Your task to perform on an android device: check out phone information Image 0: 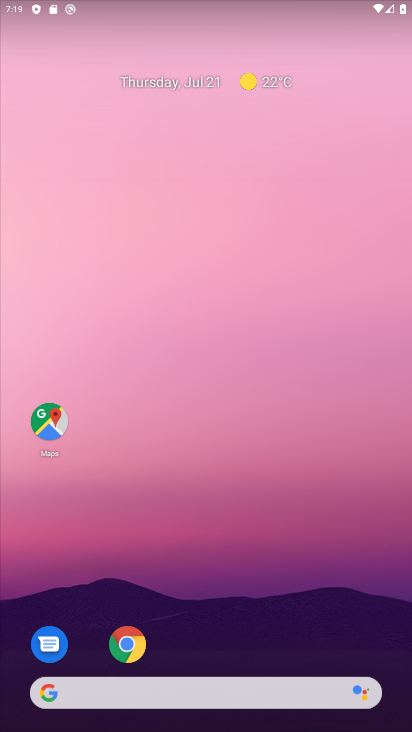
Step 0: drag from (365, 600) to (407, 122)
Your task to perform on an android device: check out phone information Image 1: 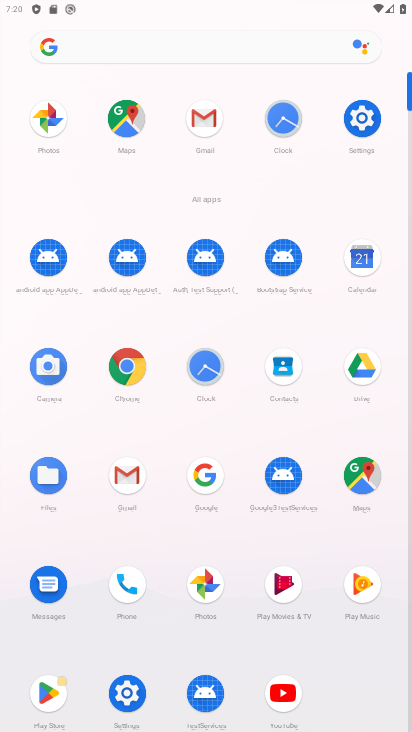
Step 1: click (131, 589)
Your task to perform on an android device: check out phone information Image 2: 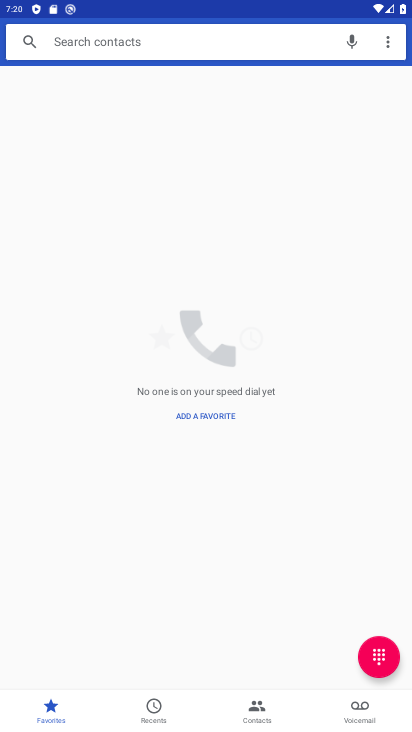
Step 2: task complete